Your task to perform on an android device: Open privacy settings Image 0: 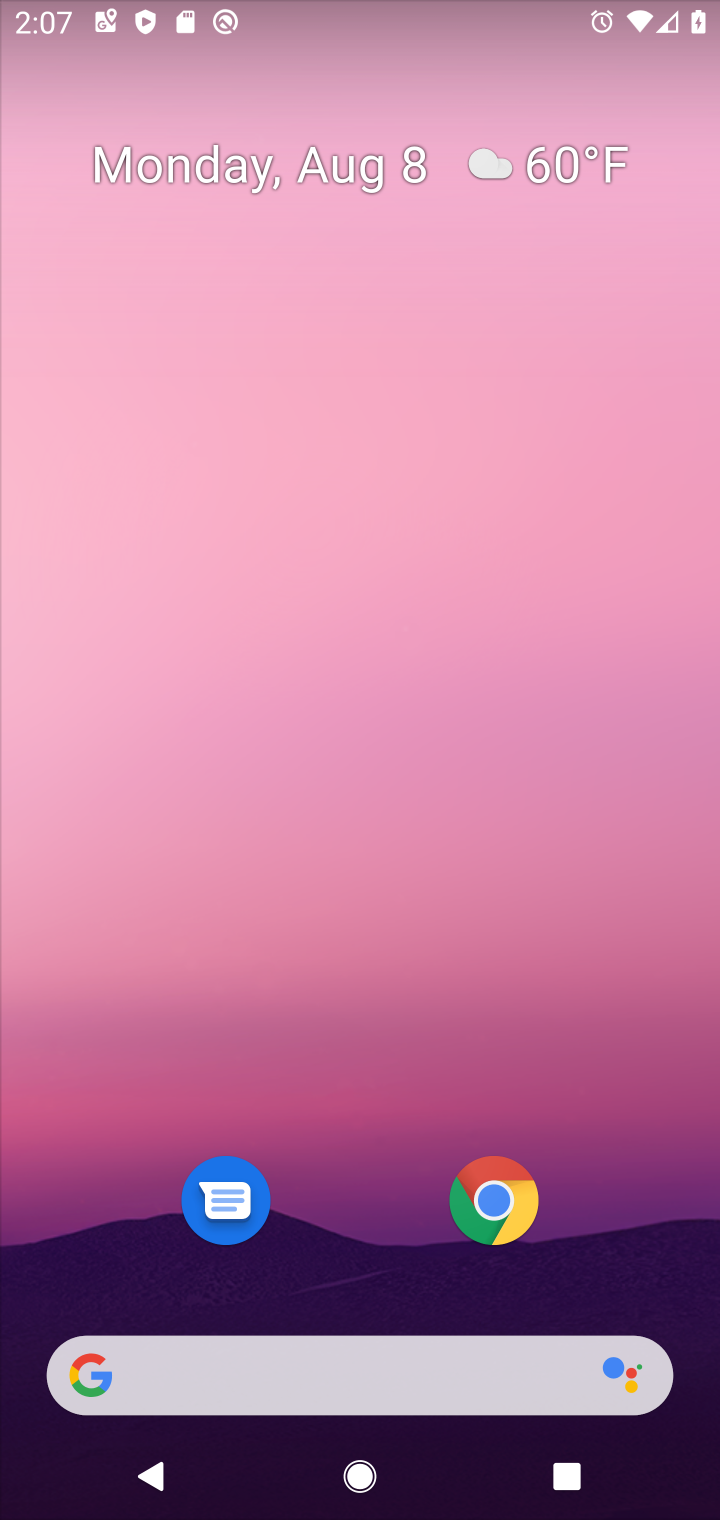
Step 0: press home button
Your task to perform on an android device: Open privacy settings Image 1: 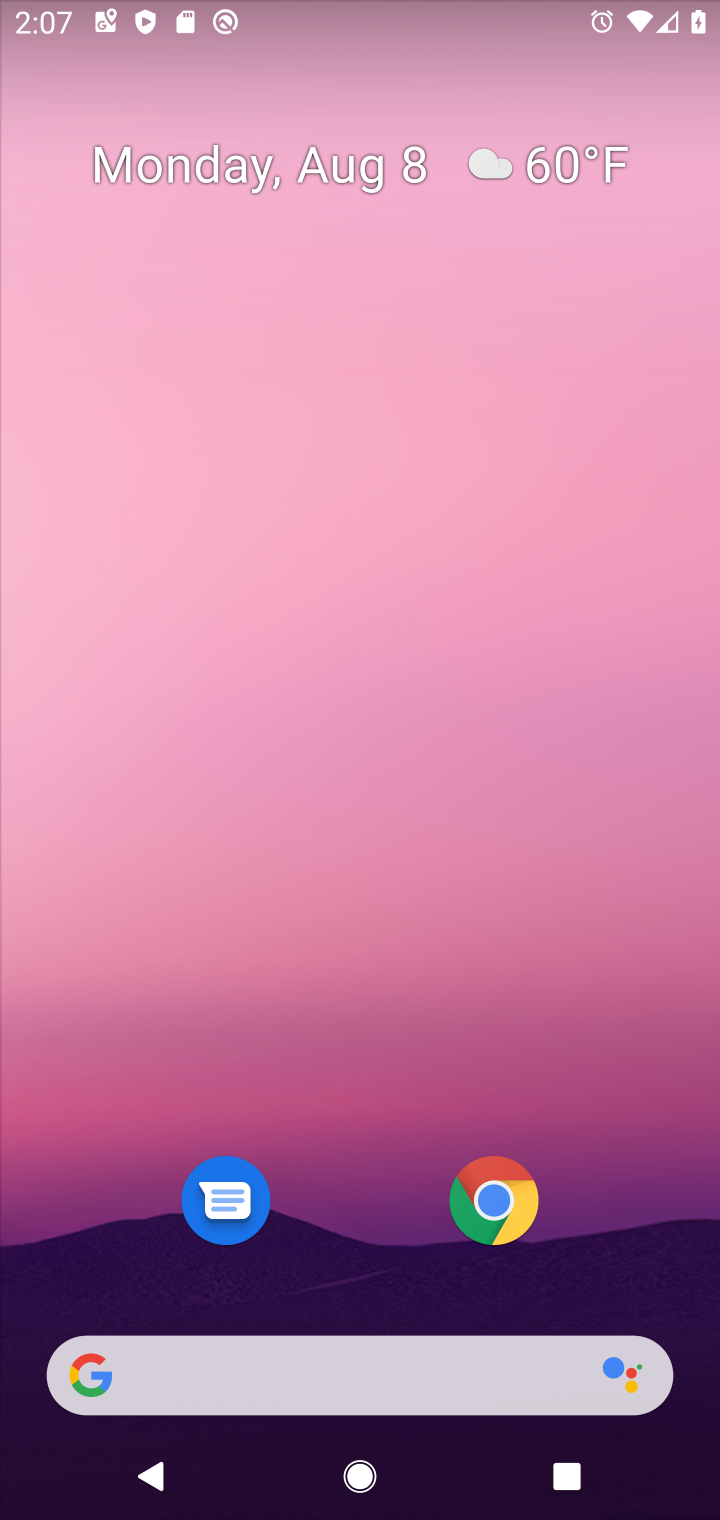
Step 1: drag from (406, 1280) to (480, 147)
Your task to perform on an android device: Open privacy settings Image 2: 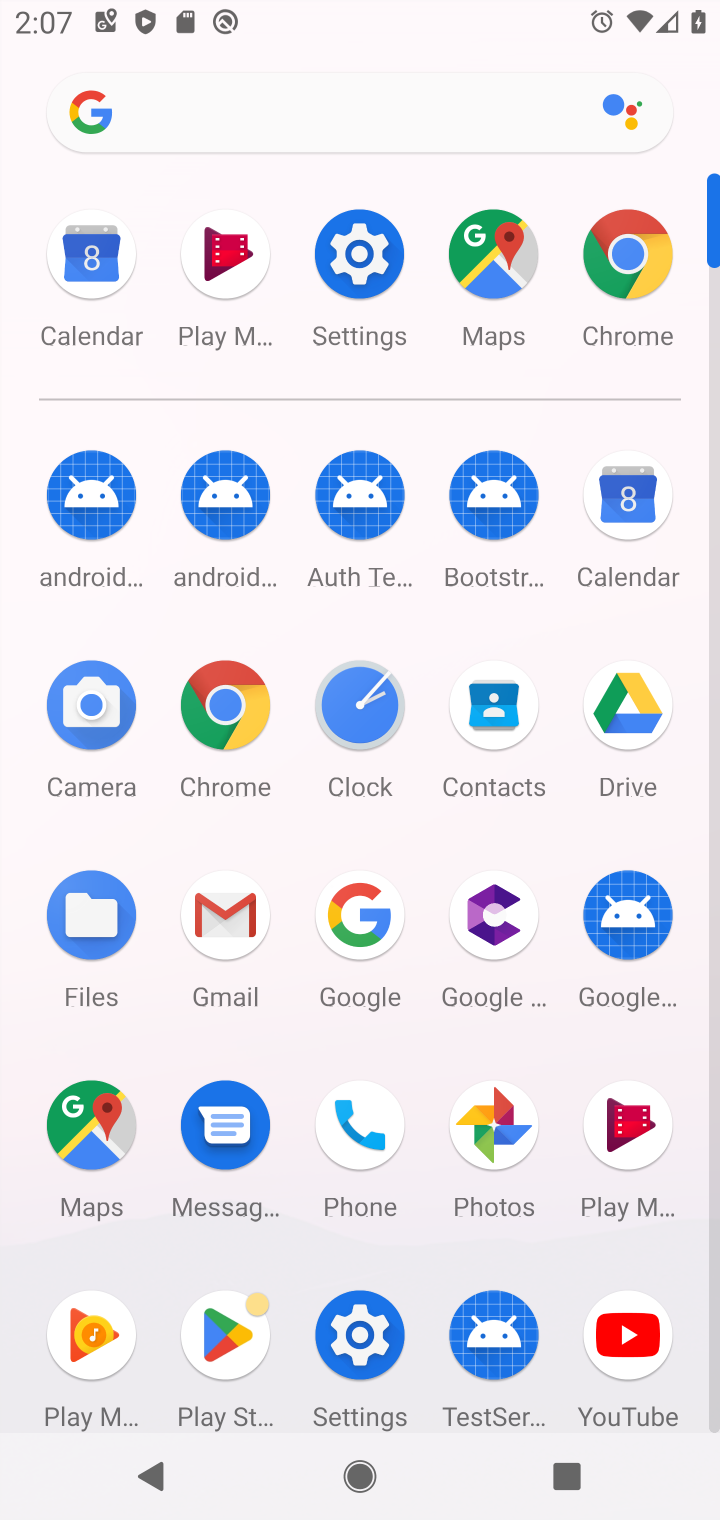
Step 2: click (350, 1322)
Your task to perform on an android device: Open privacy settings Image 3: 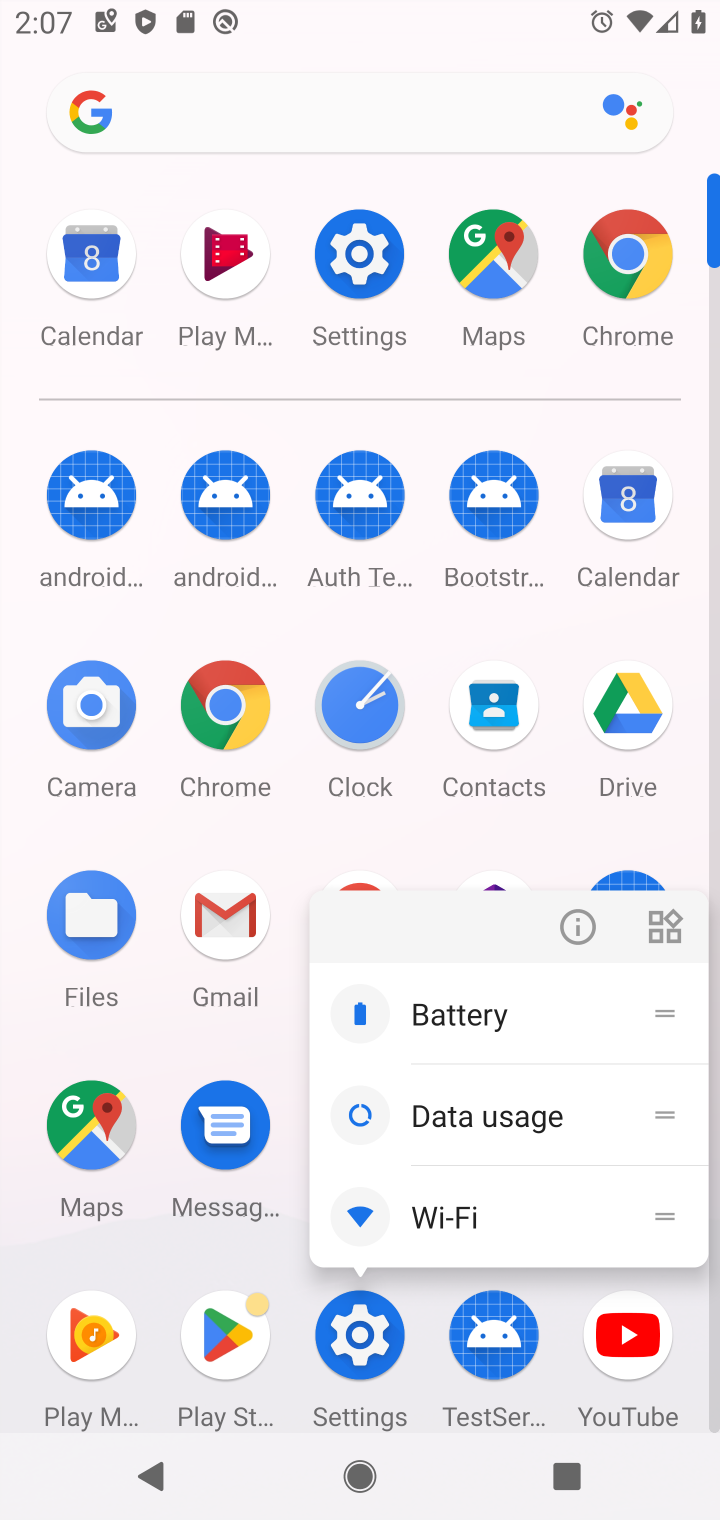
Step 3: click (353, 1329)
Your task to perform on an android device: Open privacy settings Image 4: 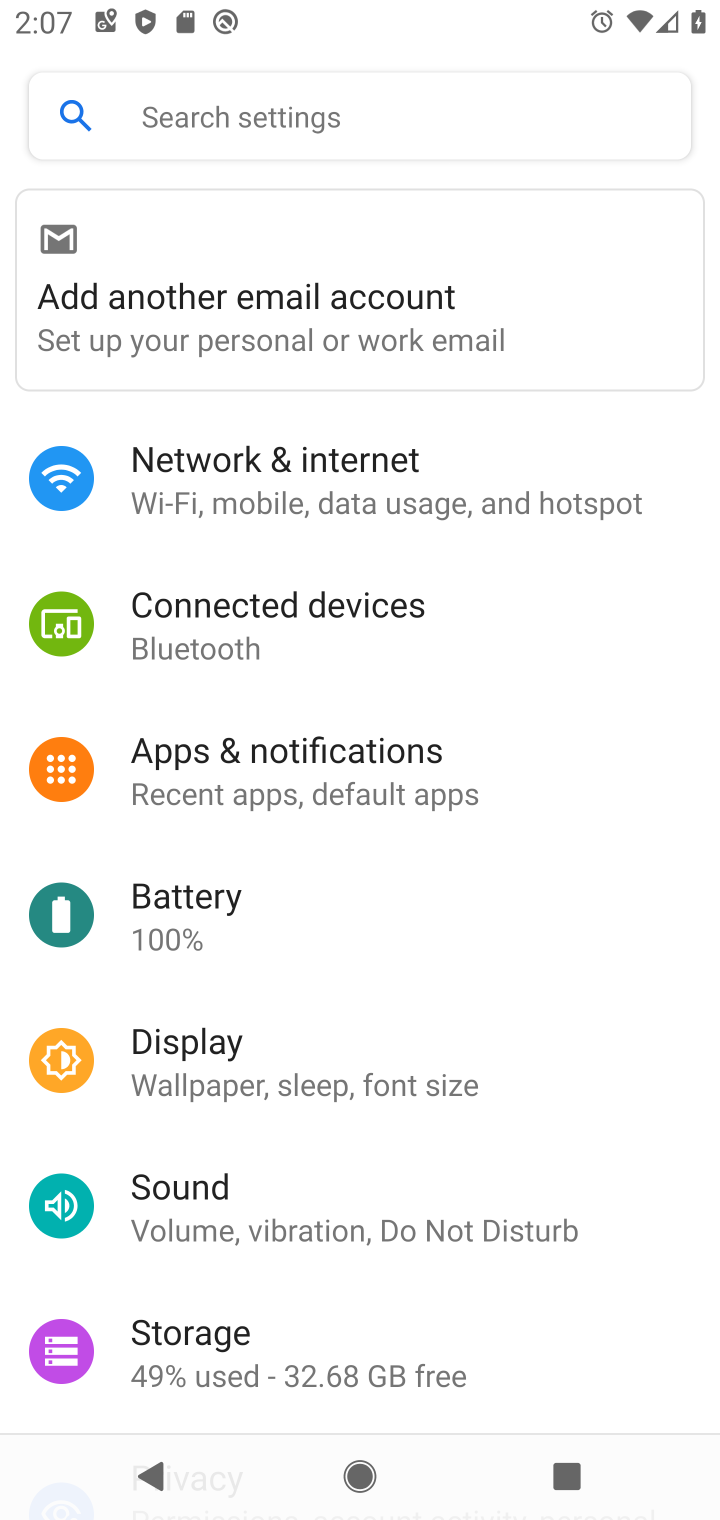
Step 4: click (274, 1352)
Your task to perform on an android device: Open privacy settings Image 5: 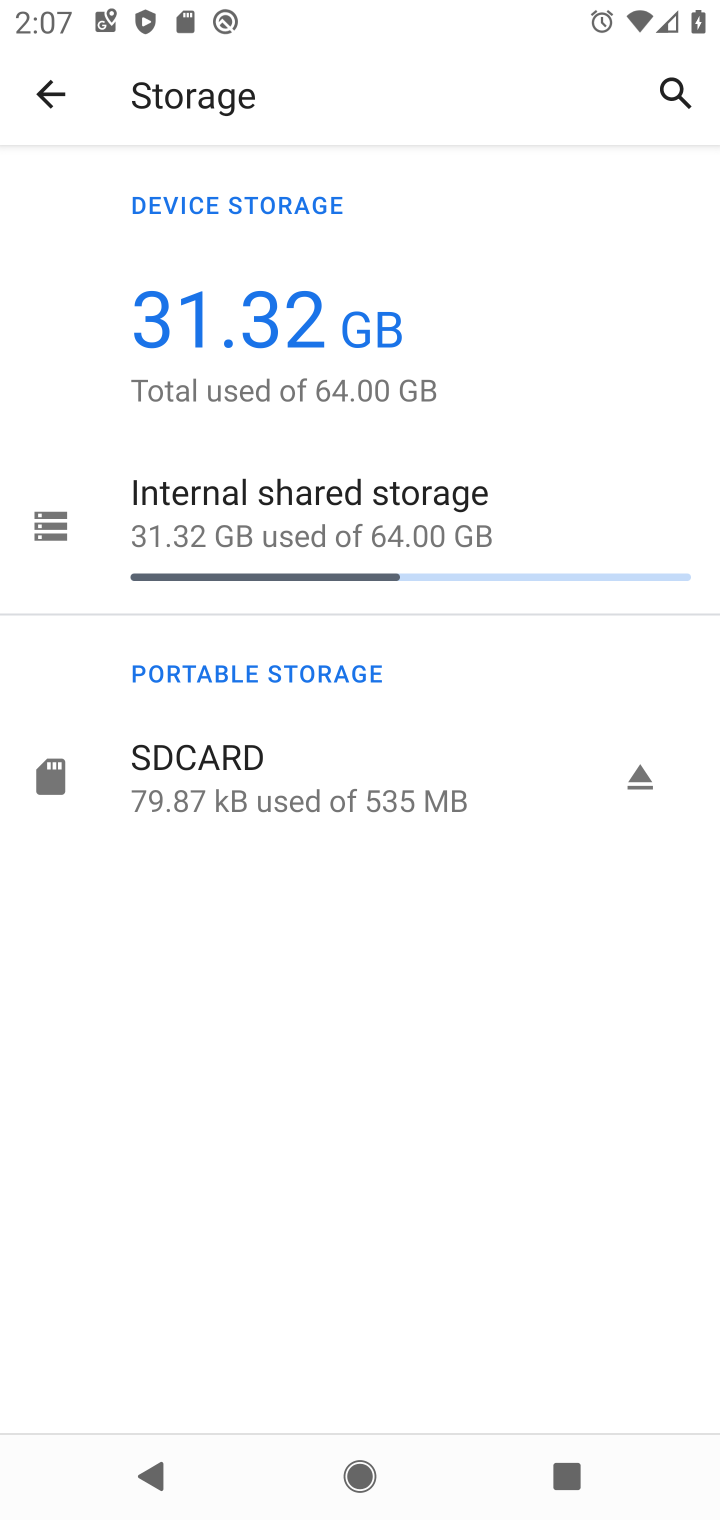
Step 5: task complete